Your task to perform on an android device: Open network settings Image 0: 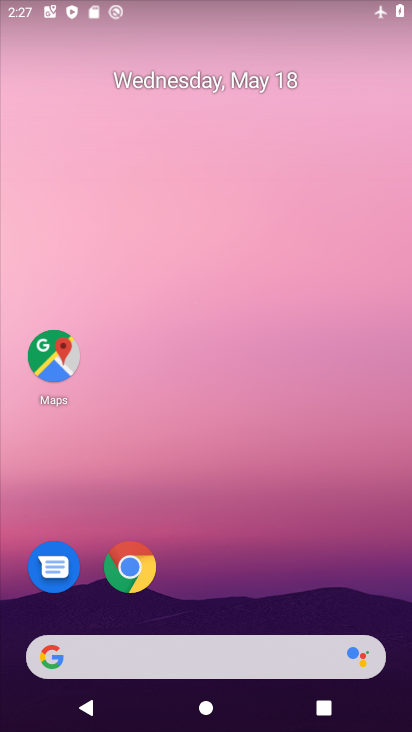
Step 0: drag from (226, 609) to (219, 298)
Your task to perform on an android device: Open network settings Image 1: 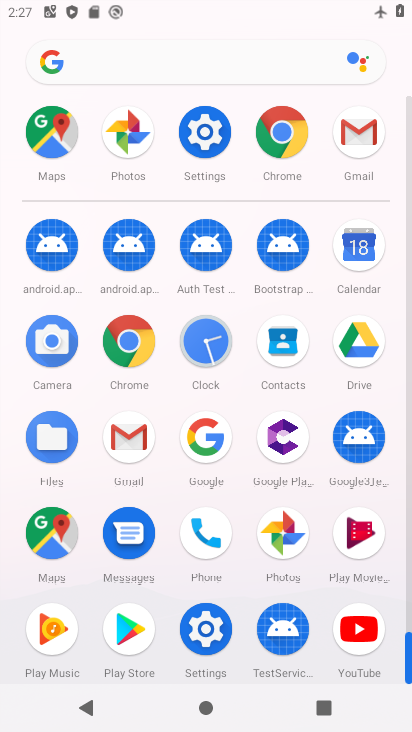
Step 1: click (199, 120)
Your task to perform on an android device: Open network settings Image 2: 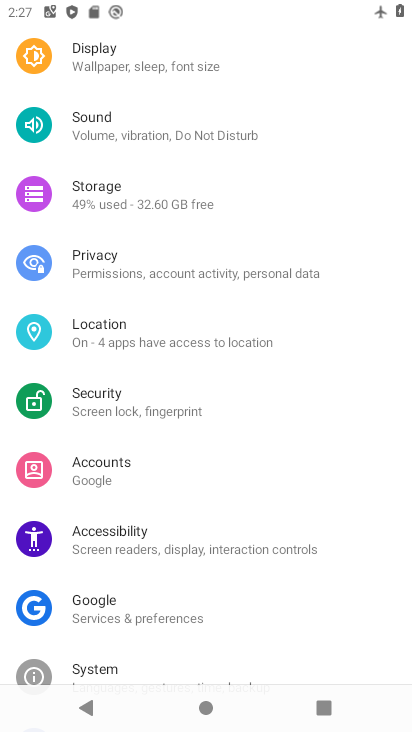
Step 2: drag from (121, 146) to (64, 592)
Your task to perform on an android device: Open network settings Image 3: 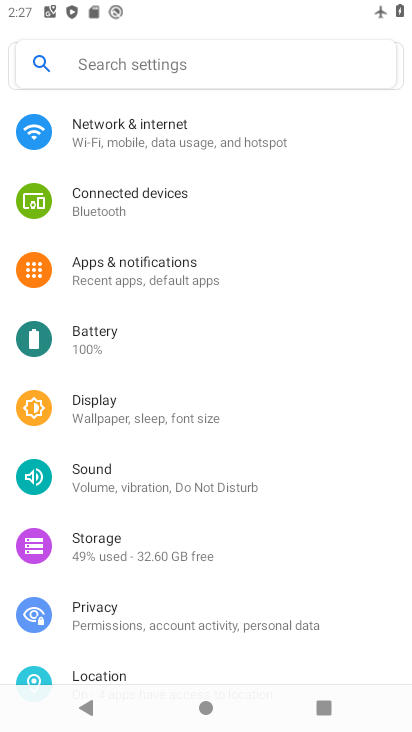
Step 3: click (189, 137)
Your task to perform on an android device: Open network settings Image 4: 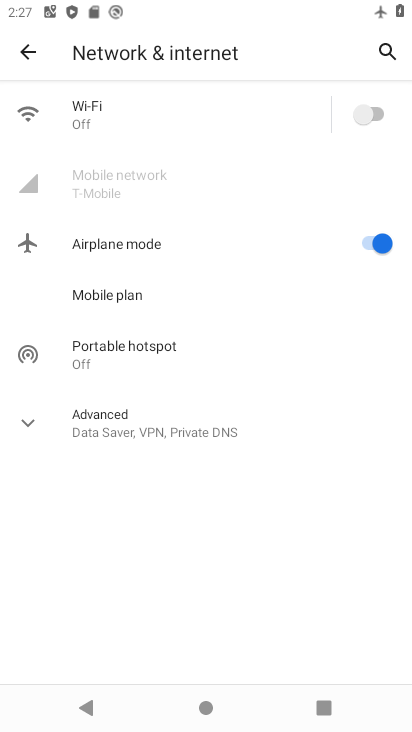
Step 4: task complete